Your task to perform on an android device: delete a single message in the gmail app Image 0: 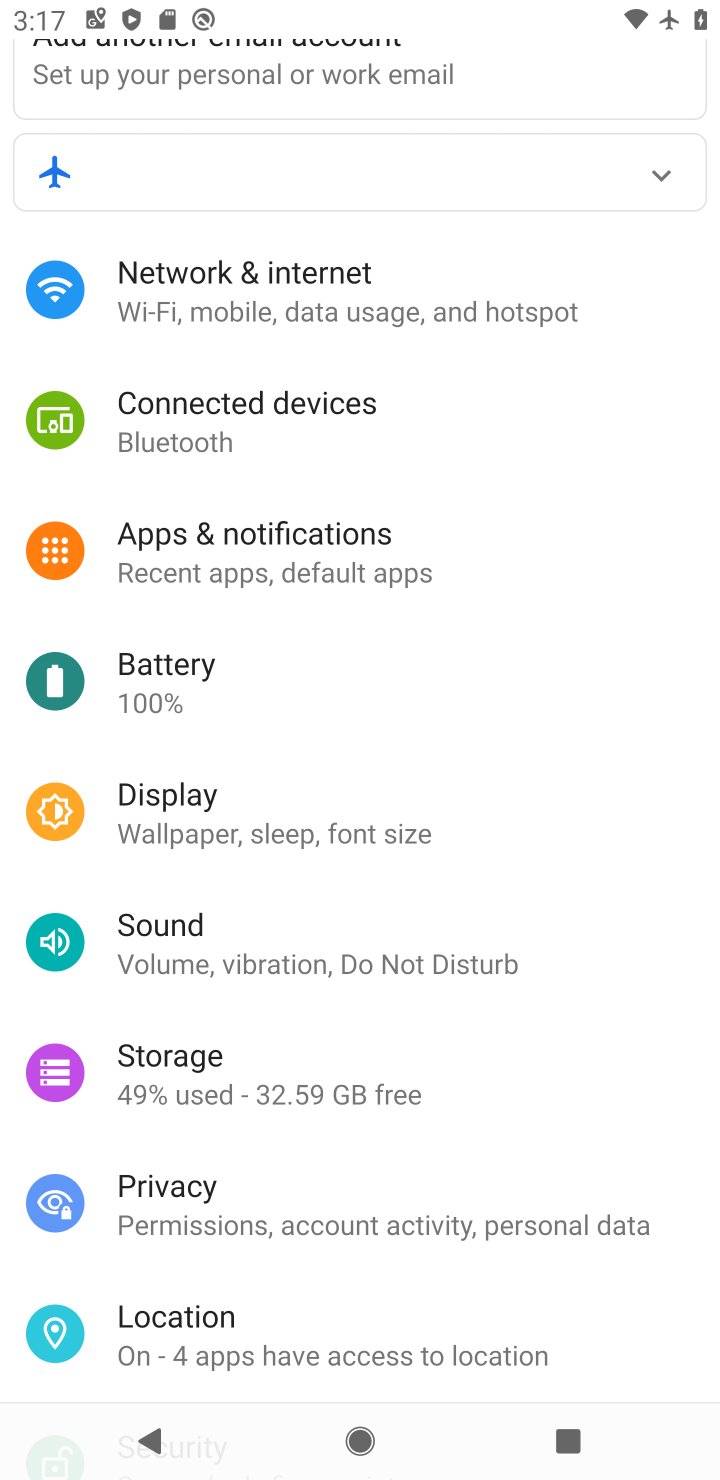
Step 0: press home button
Your task to perform on an android device: delete a single message in the gmail app Image 1: 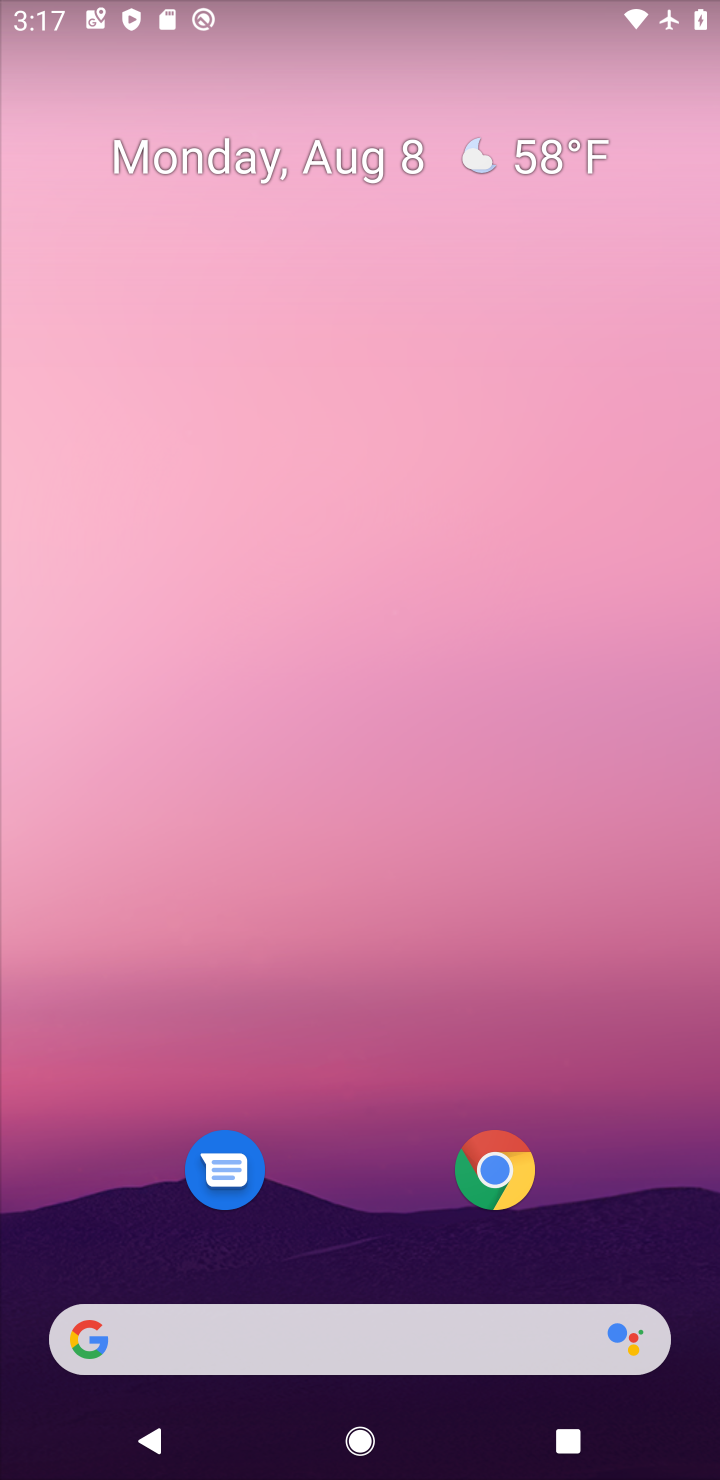
Step 1: drag from (346, 1155) to (346, 333)
Your task to perform on an android device: delete a single message in the gmail app Image 2: 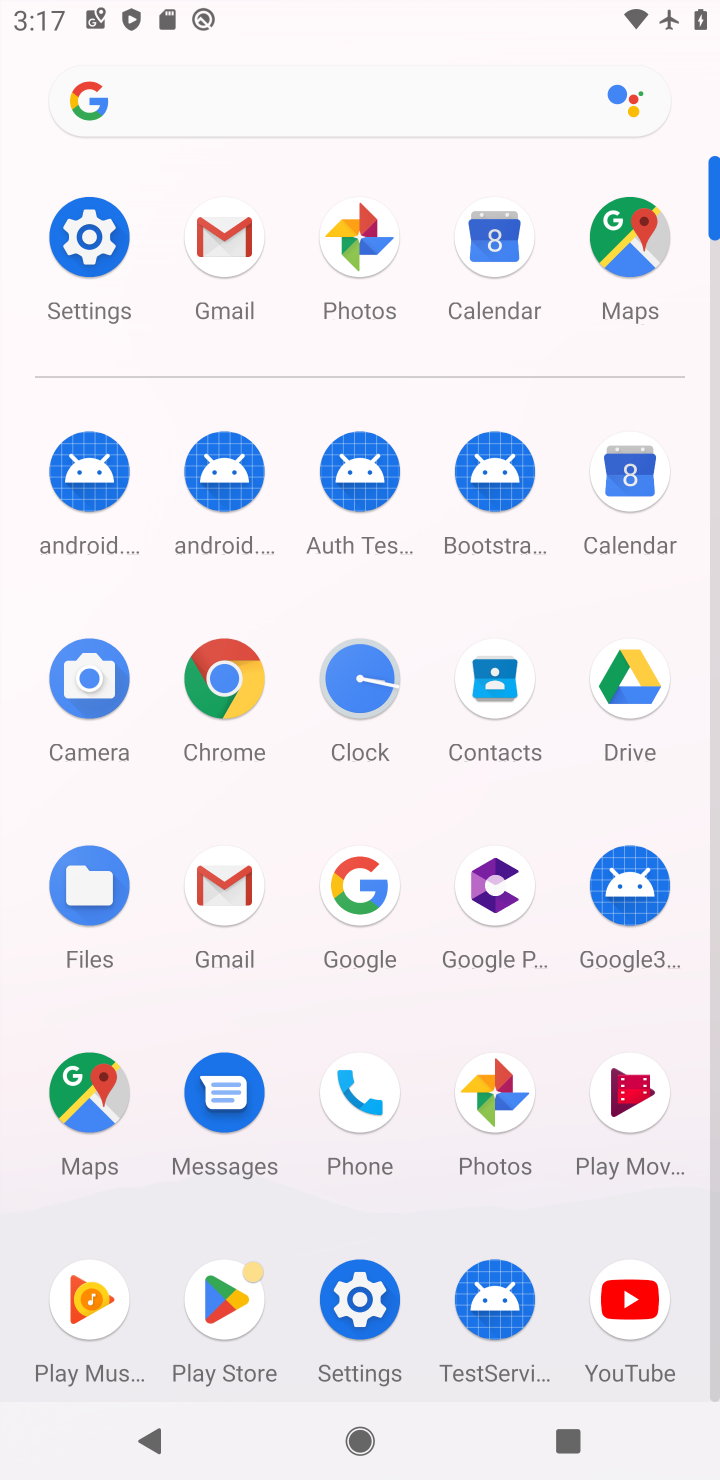
Step 2: click (241, 266)
Your task to perform on an android device: delete a single message in the gmail app Image 3: 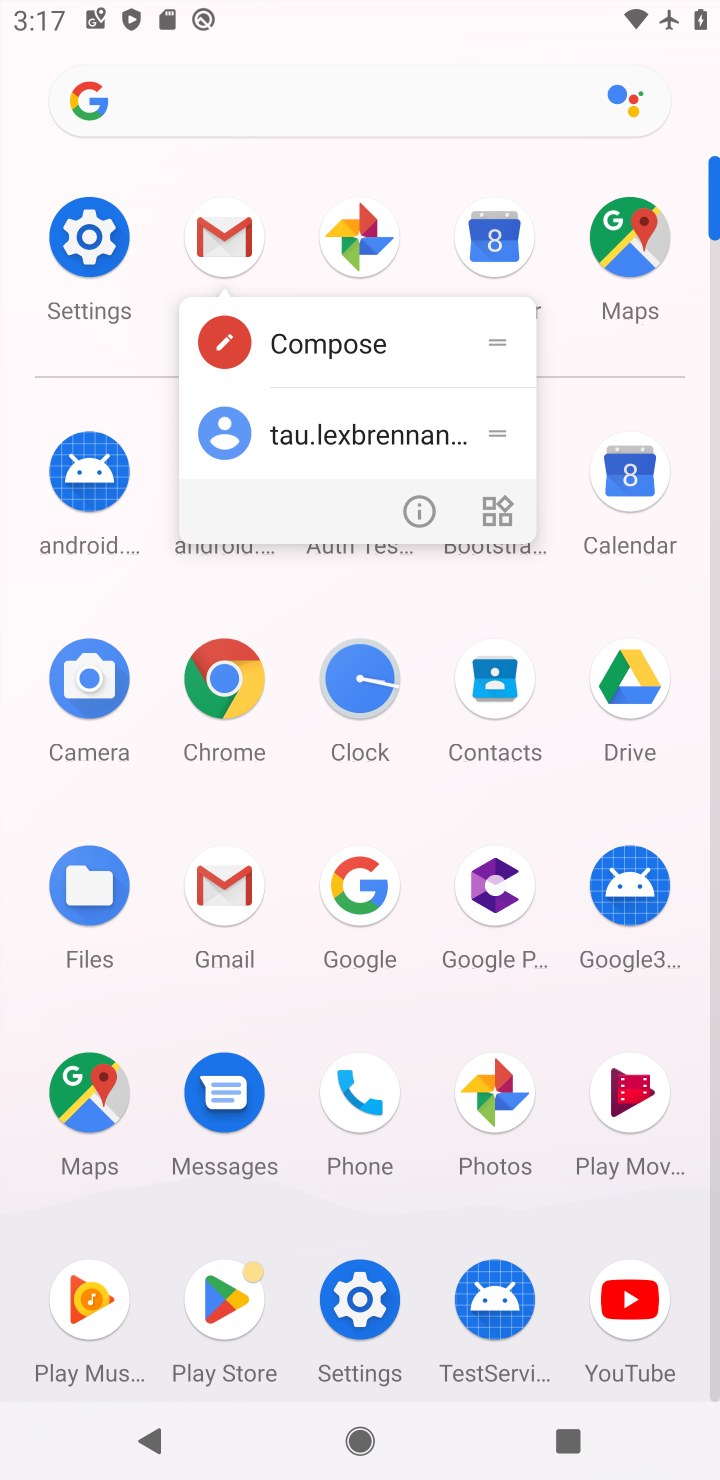
Step 3: click (213, 223)
Your task to perform on an android device: delete a single message in the gmail app Image 4: 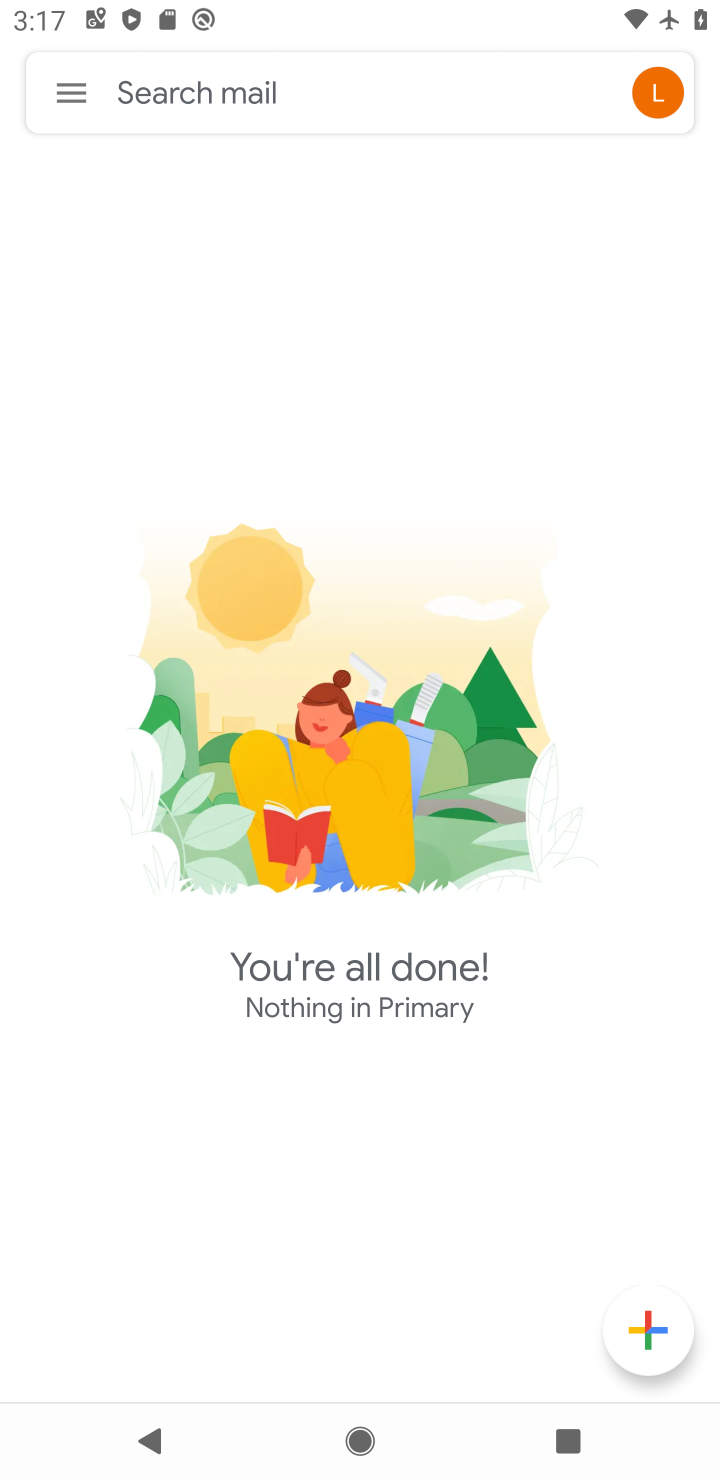
Step 4: click (68, 99)
Your task to perform on an android device: delete a single message in the gmail app Image 5: 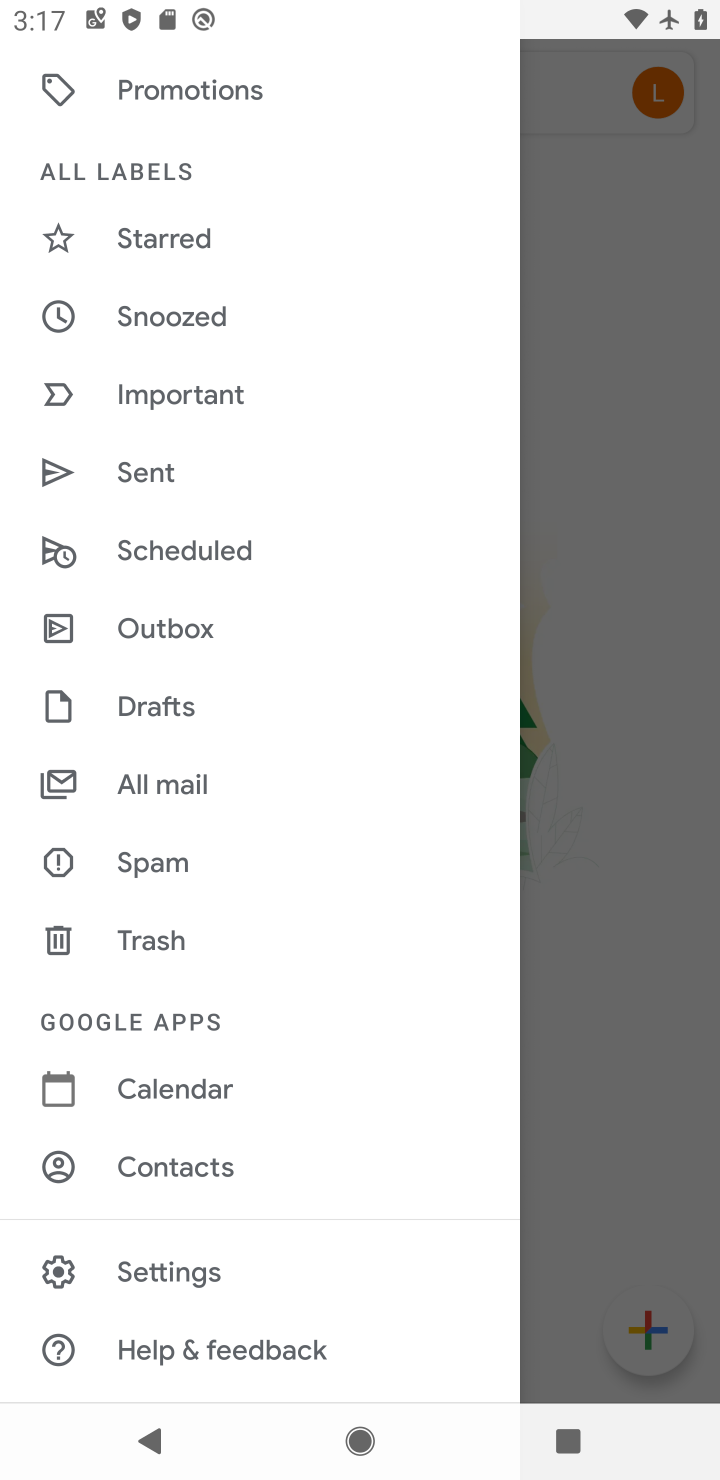
Step 5: click (179, 791)
Your task to perform on an android device: delete a single message in the gmail app Image 6: 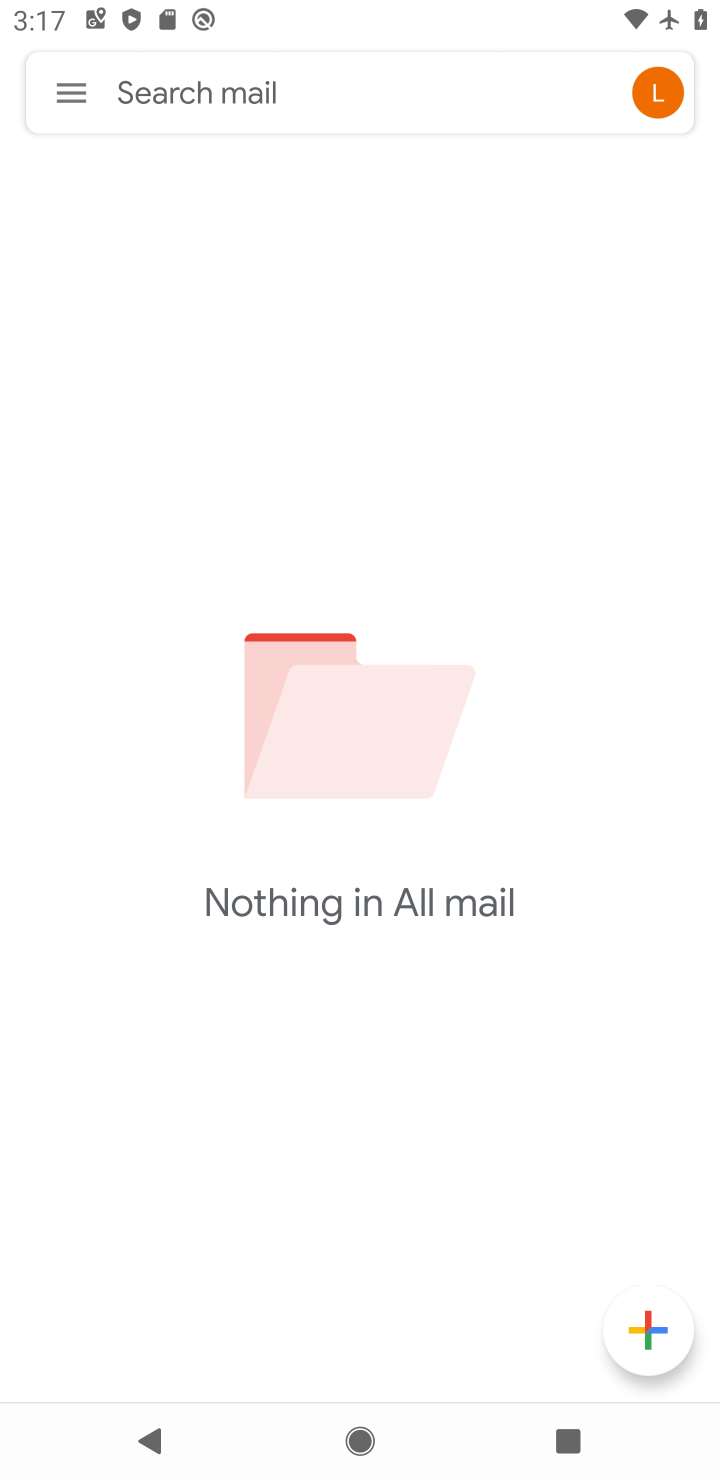
Step 6: task complete